Your task to perform on an android device: Go to Reddit.com Image 0: 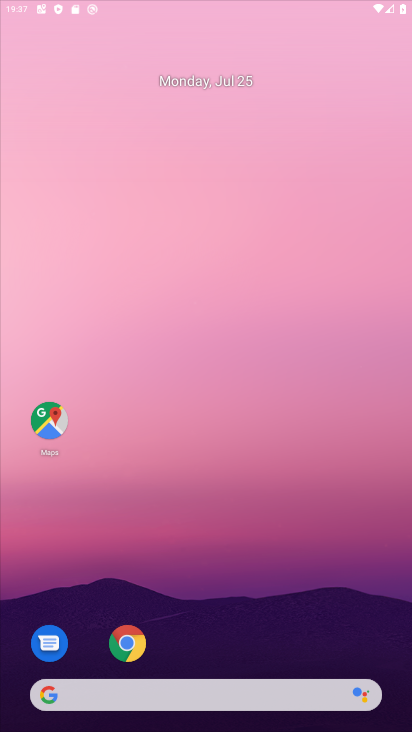
Step 0: press home button
Your task to perform on an android device: Go to Reddit.com Image 1: 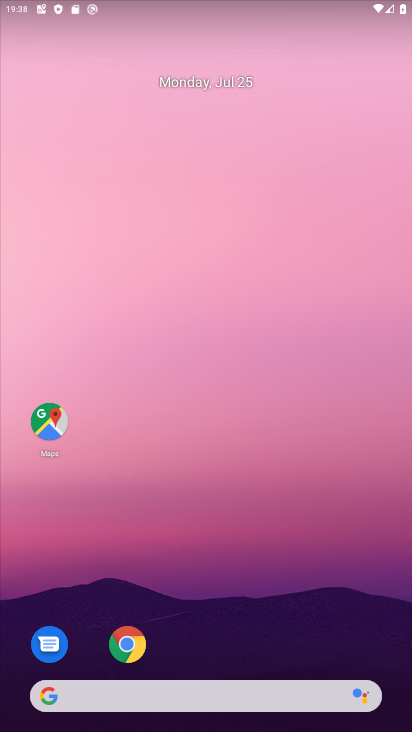
Step 1: drag from (220, 642) to (219, 33)
Your task to perform on an android device: Go to Reddit.com Image 2: 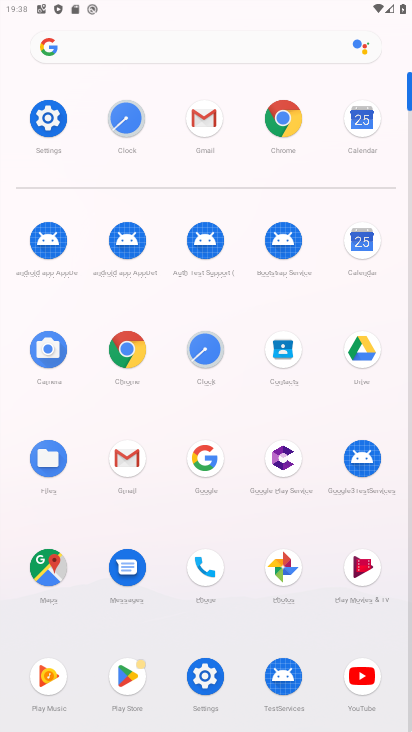
Step 2: click (281, 114)
Your task to perform on an android device: Go to Reddit.com Image 3: 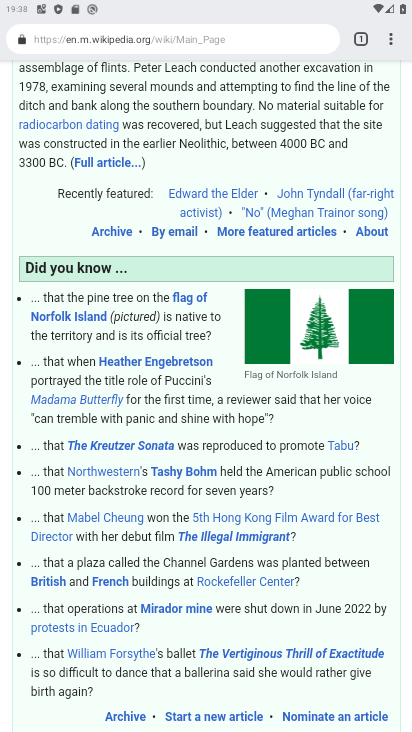
Step 3: click (361, 36)
Your task to perform on an android device: Go to Reddit.com Image 4: 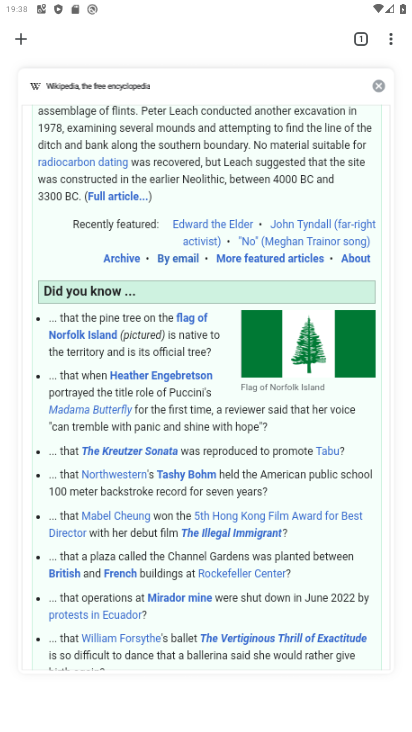
Step 4: click (17, 34)
Your task to perform on an android device: Go to Reddit.com Image 5: 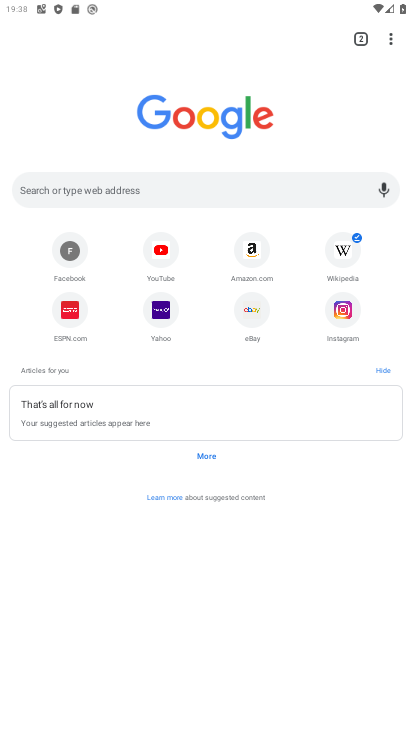
Step 5: click (50, 185)
Your task to perform on an android device: Go to Reddit.com Image 6: 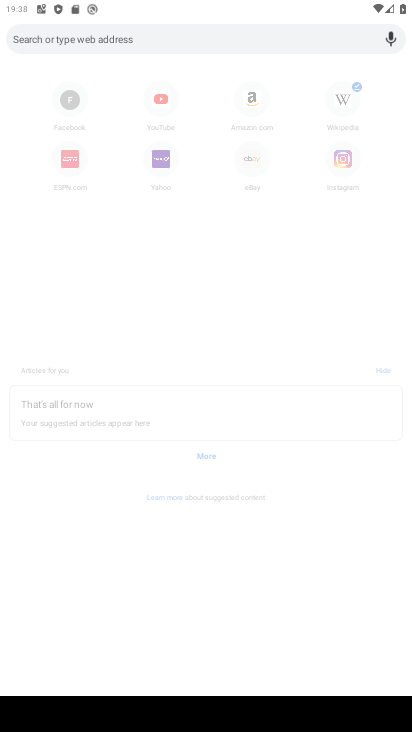
Step 6: type "reddit.com"
Your task to perform on an android device: Go to Reddit.com Image 7: 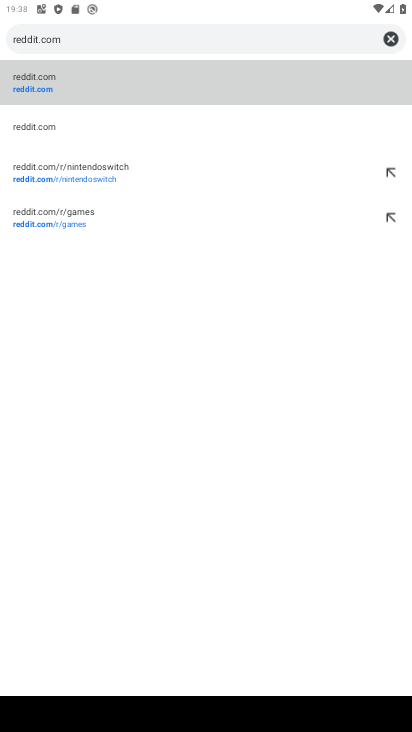
Step 7: click (78, 82)
Your task to perform on an android device: Go to Reddit.com Image 8: 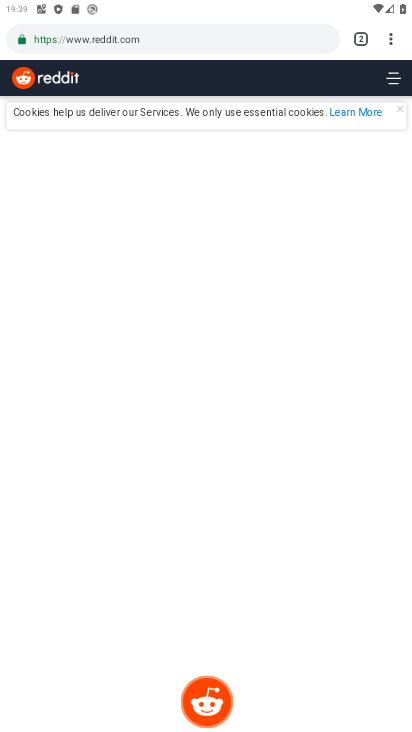
Step 8: task complete